Your task to perform on an android device: toggle translation in the chrome app Image 0: 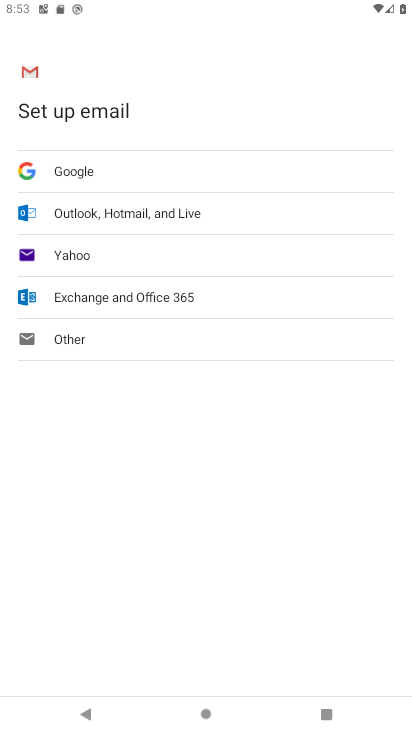
Step 0: press home button
Your task to perform on an android device: toggle translation in the chrome app Image 1: 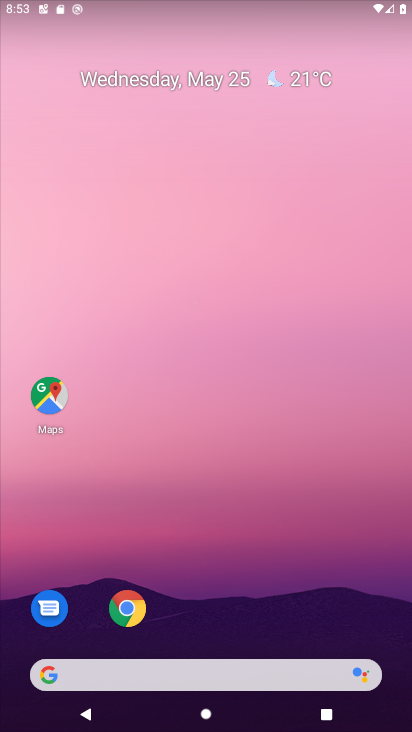
Step 1: click (124, 613)
Your task to perform on an android device: toggle translation in the chrome app Image 2: 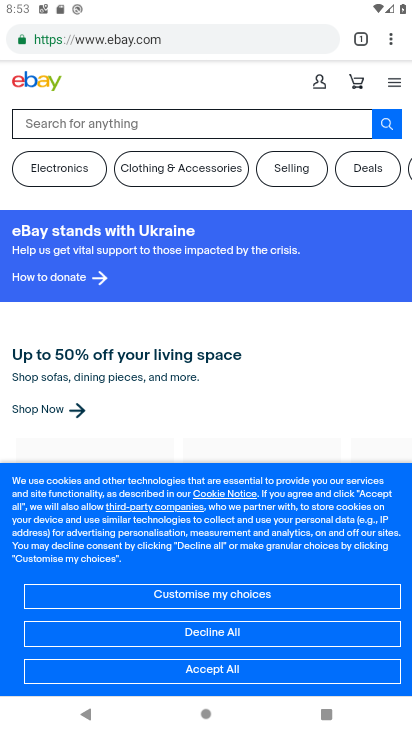
Step 2: click (391, 41)
Your task to perform on an android device: toggle translation in the chrome app Image 3: 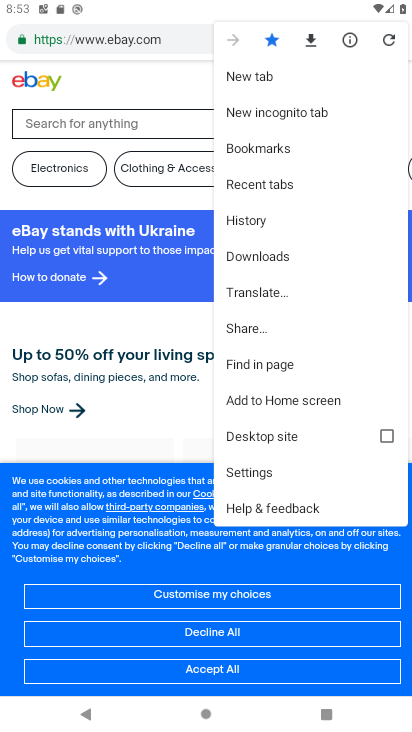
Step 3: click (243, 470)
Your task to perform on an android device: toggle translation in the chrome app Image 4: 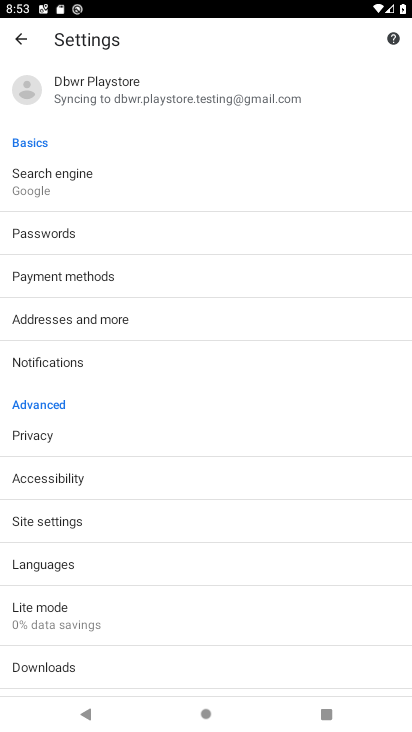
Step 4: click (41, 567)
Your task to perform on an android device: toggle translation in the chrome app Image 5: 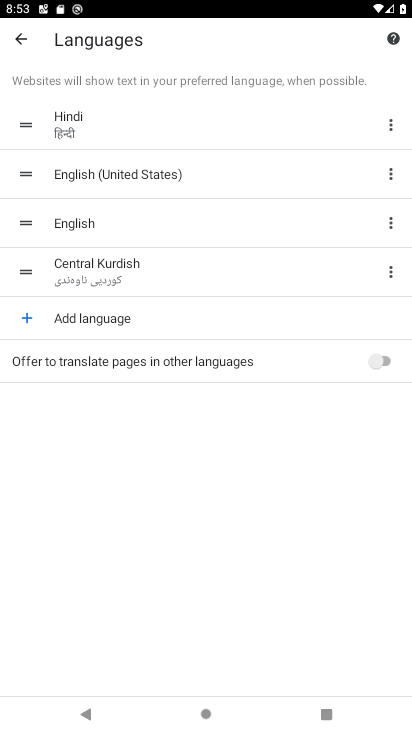
Step 5: click (384, 357)
Your task to perform on an android device: toggle translation in the chrome app Image 6: 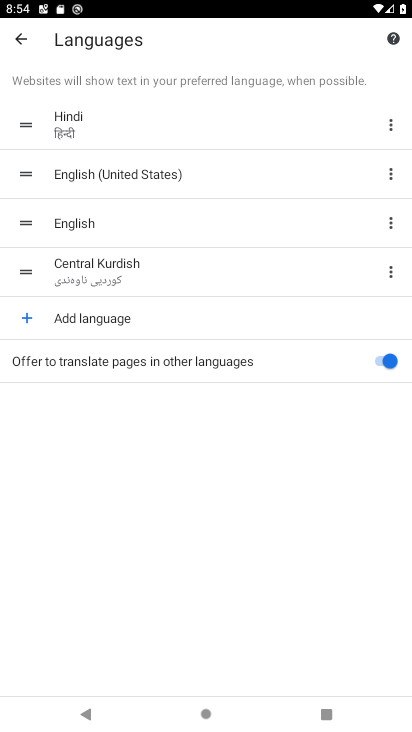
Step 6: task complete